Your task to perform on an android device: Toggle the flashlight Image 0: 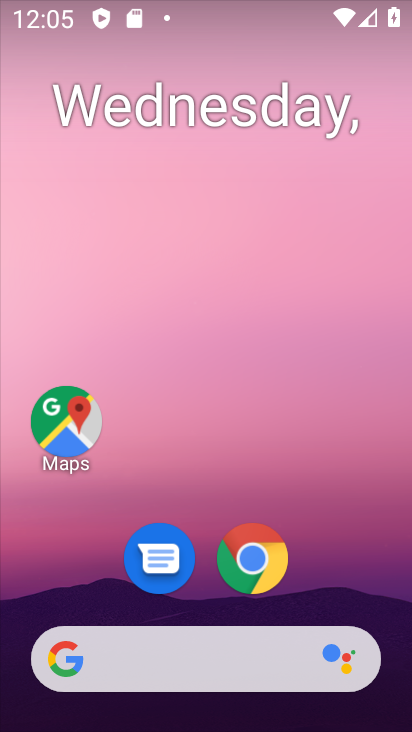
Step 0: drag from (213, 618) to (241, 124)
Your task to perform on an android device: Toggle the flashlight Image 1: 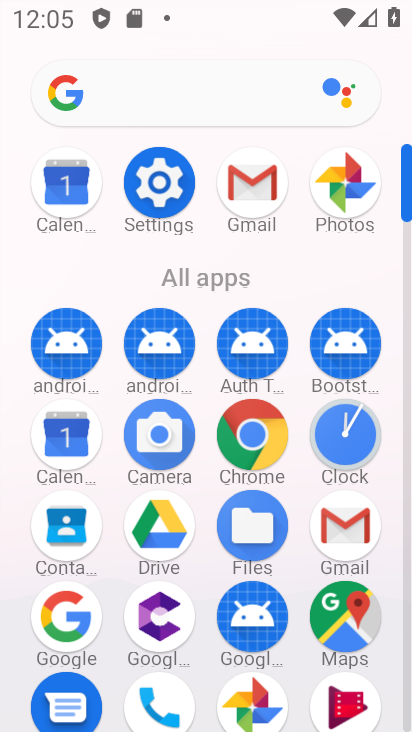
Step 1: task complete